Your task to perform on an android device: add a contact in the contacts app Image 0: 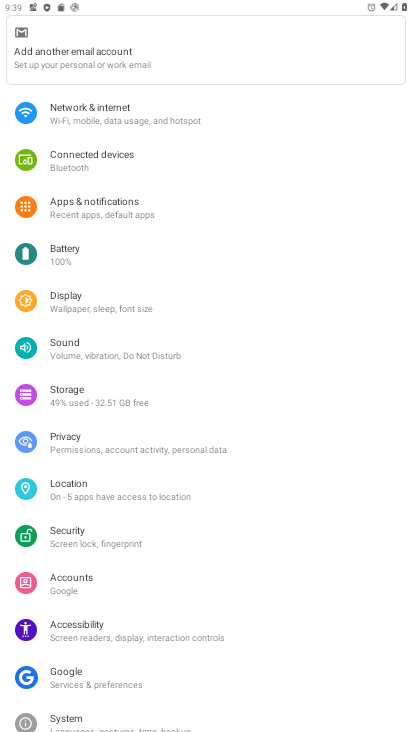
Step 0: press home button
Your task to perform on an android device: add a contact in the contacts app Image 1: 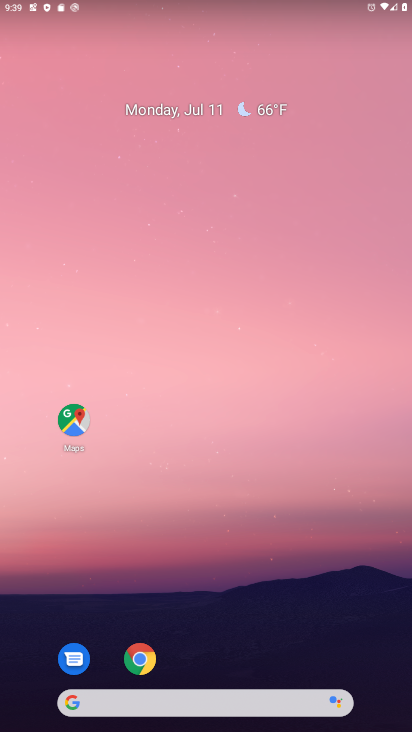
Step 1: drag from (376, 625) to (372, 224)
Your task to perform on an android device: add a contact in the contacts app Image 2: 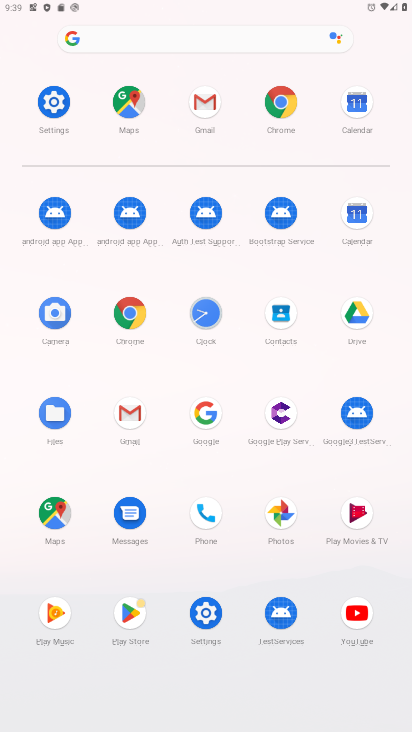
Step 2: click (279, 314)
Your task to perform on an android device: add a contact in the contacts app Image 3: 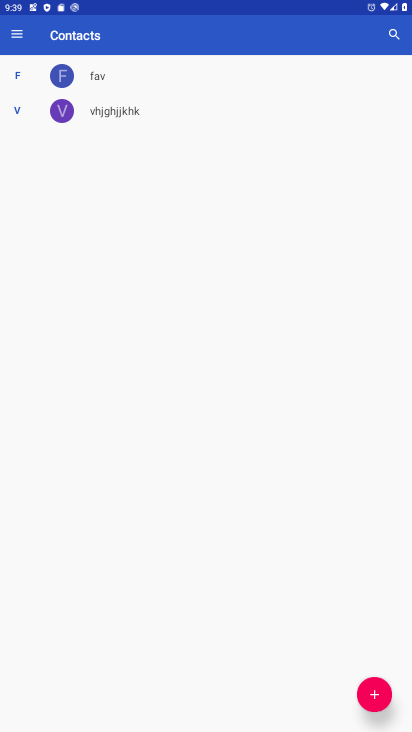
Step 3: click (374, 699)
Your task to perform on an android device: add a contact in the contacts app Image 4: 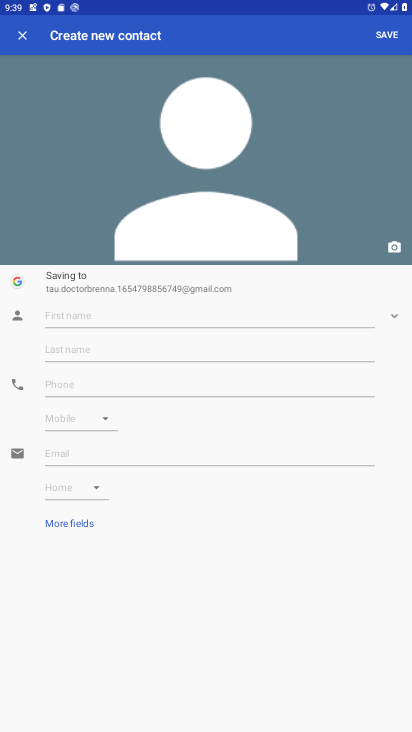
Step 4: click (256, 319)
Your task to perform on an android device: add a contact in the contacts app Image 5: 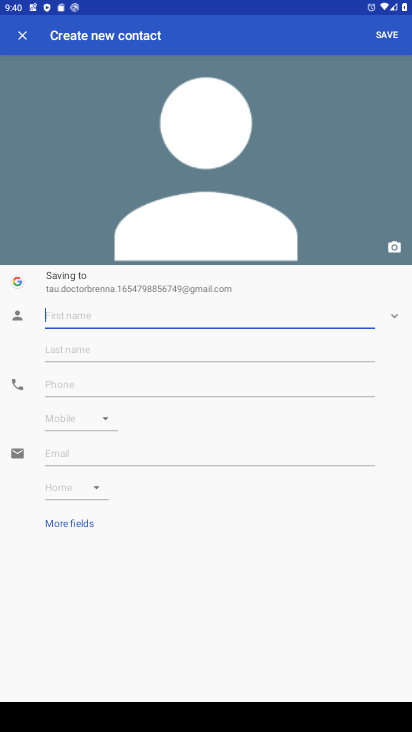
Step 5: type "me"
Your task to perform on an android device: add a contact in the contacts app Image 6: 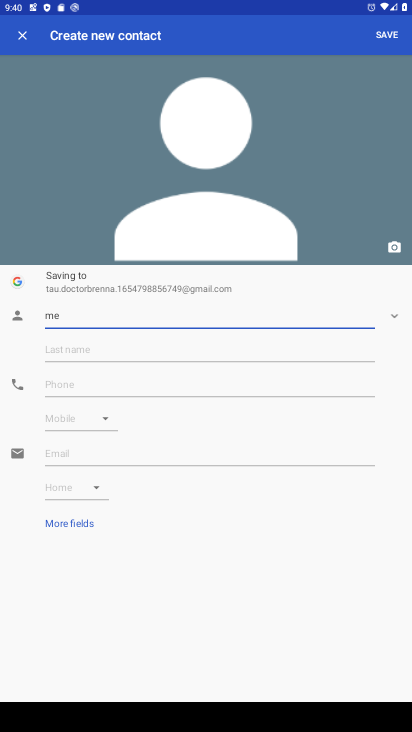
Step 6: click (317, 378)
Your task to perform on an android device: add a contact in the contacts app Image 7: 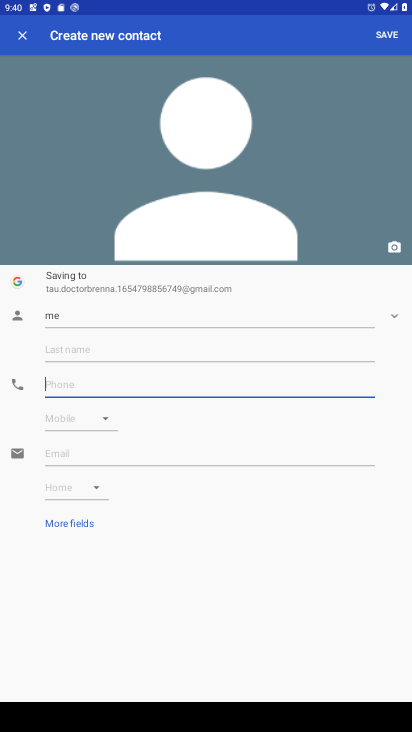
Step 7: type "1234567"
Your task to perform on an android device: add a contact in the contacts app Image 8: 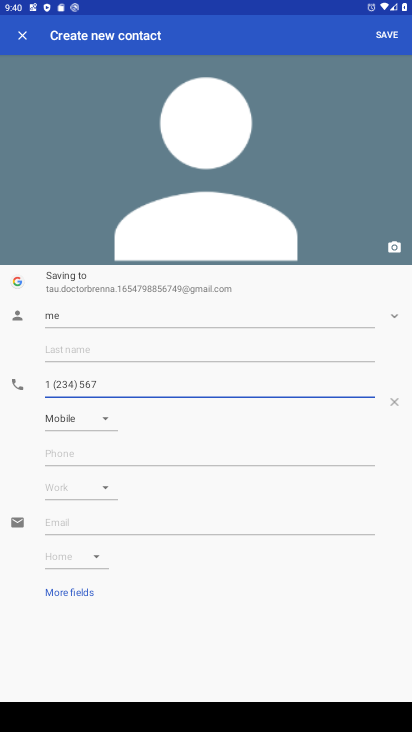
Step 8: click (388, 34)
Your task to perform on an android device: add a contact in the contacts app Image 9: 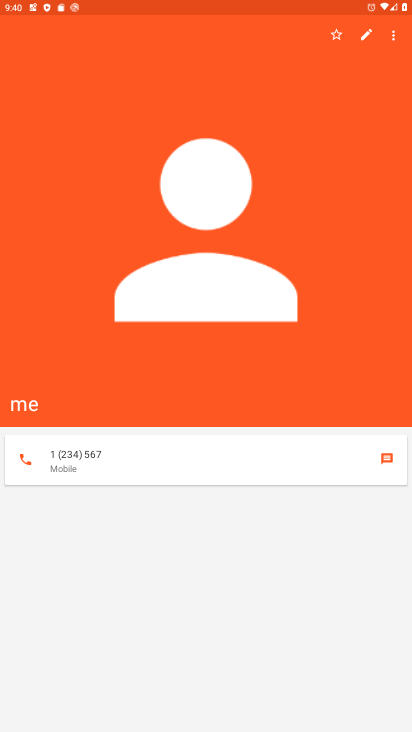
Step 9: task complete